Your task to perform on an android device: read, delete, or share a saved page in the chrome app Image 0: 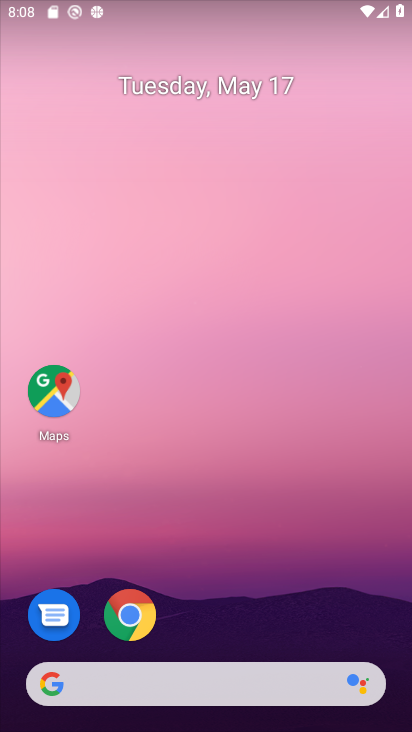
Step 0: click (139, 629)
Your task to perform on an android device: read, delete, or share a saved page in the chrome app Image 1: 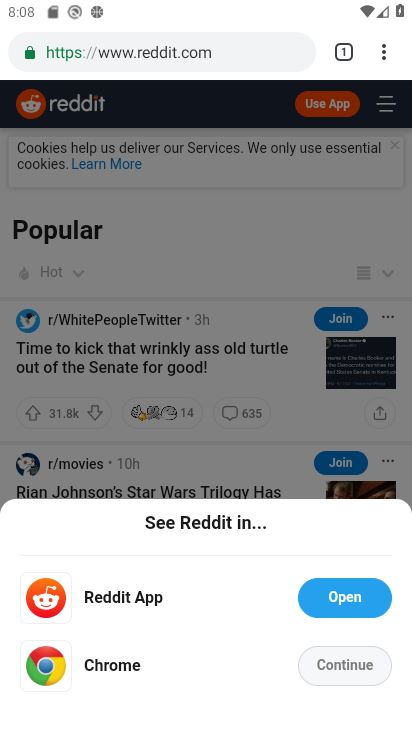
Step 1: task complete